Your task to perform on an android device: change the clock display to analog Image 0: 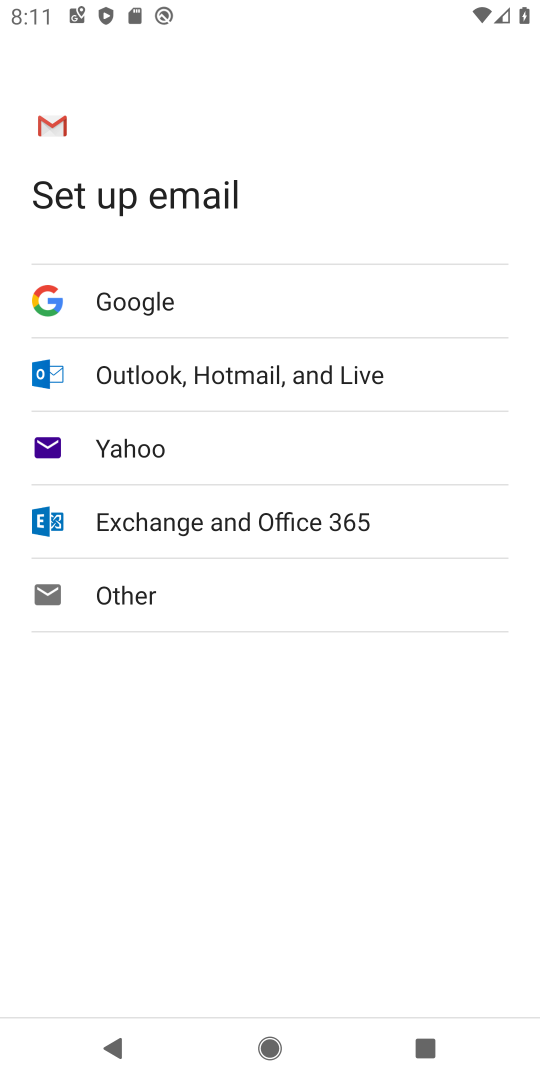
Step 0: press home button
Your task to perform on an android device: change the clock display to analog Image 1: 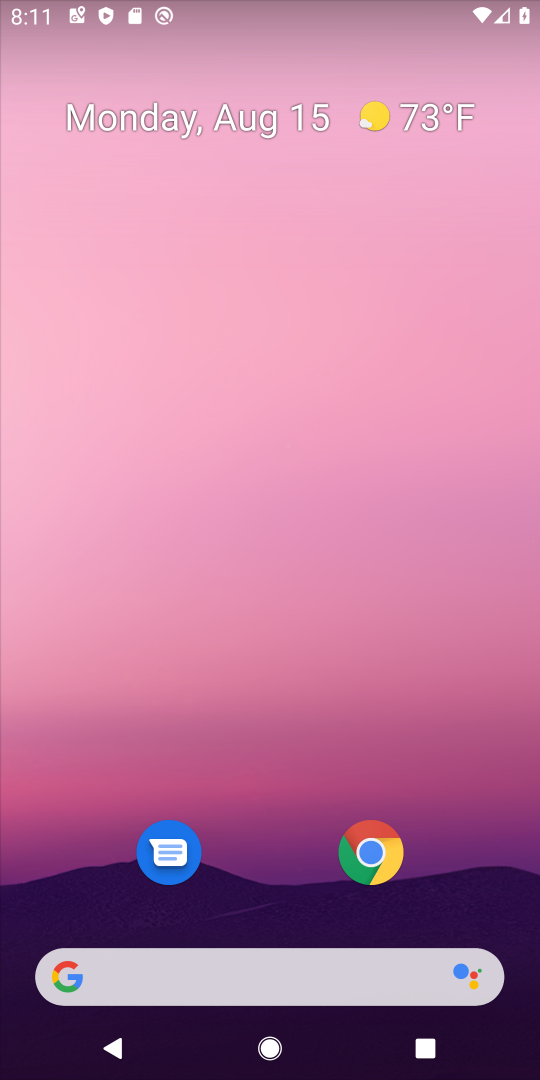
Step 1: drag from (208, 980) to (310, 0)
Your task to perform on an android device: change the clock display to analog Image 2: 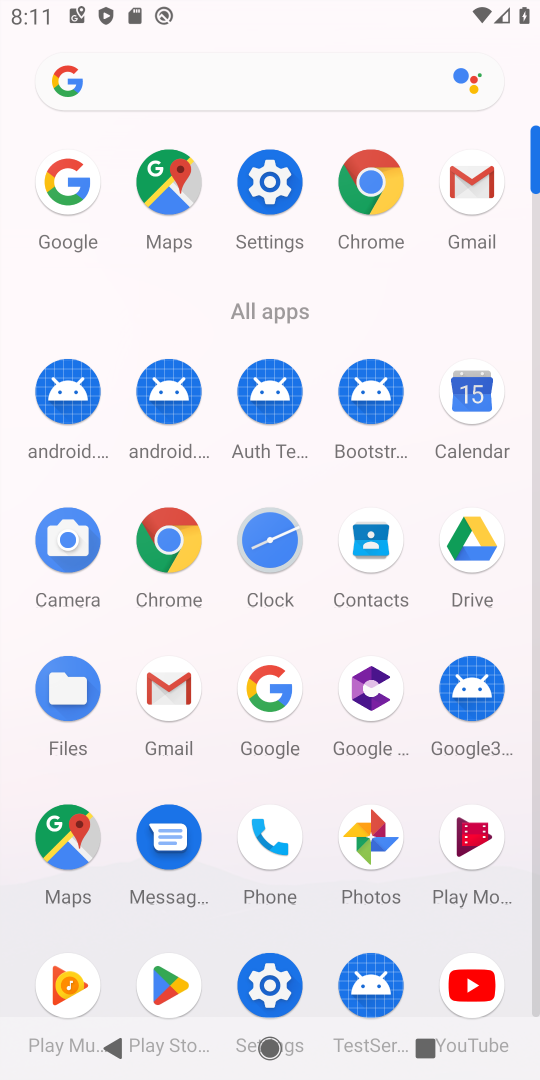
Step 2: click (271, 540)
Your task to perform on an android device: change the clock display to analog Image 3: 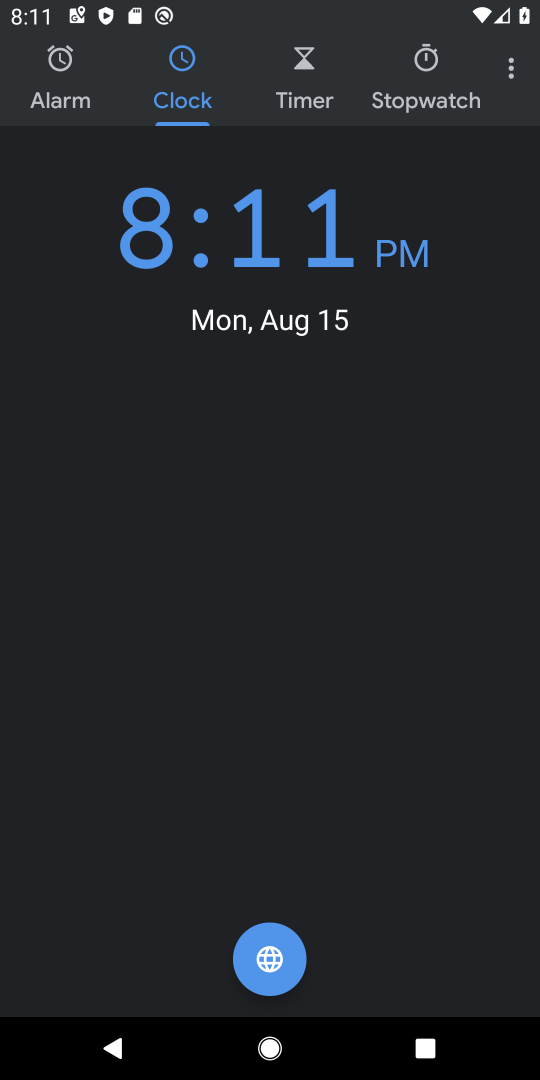
Step 3: click (510, 71)
Your task to perform on an android device: change the clock display to analog Image 4: 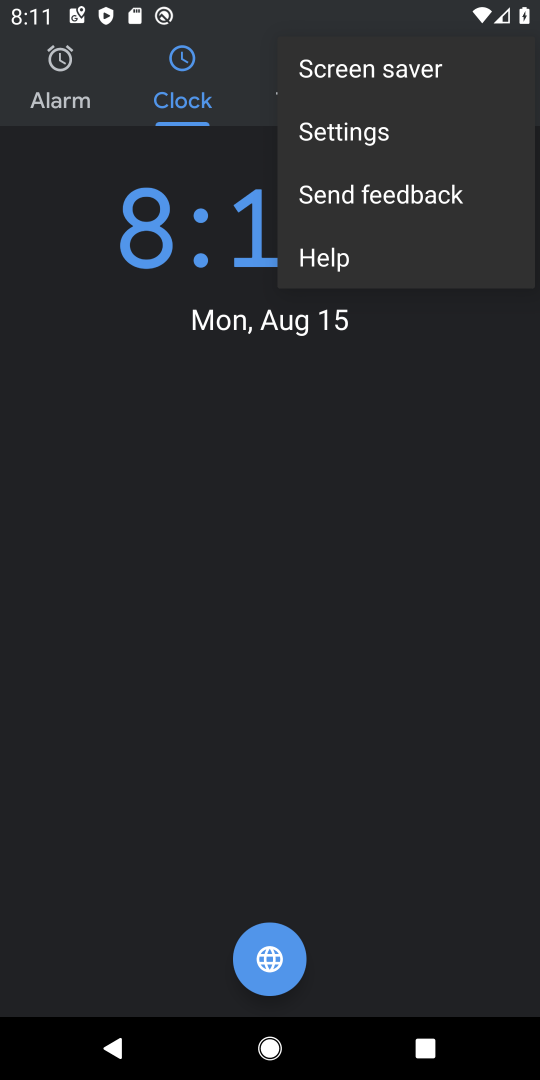
Step 4: click (348, 138)
Your task to perform on an android device: change the clock display to analog Image 5: 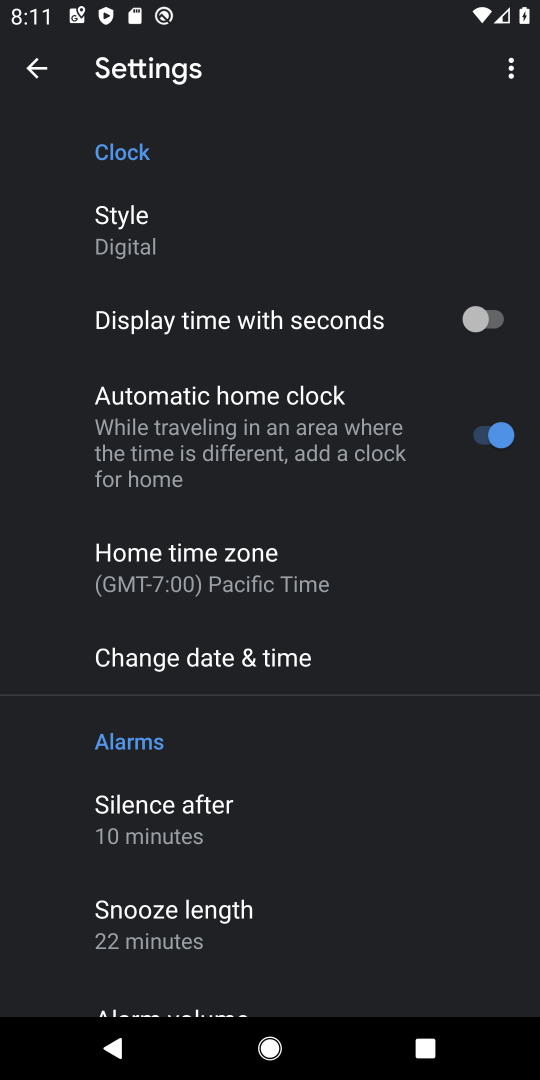
Step 5: click (146, 256)
Your task to perform on an android device: change the clock display to analog Image 6: 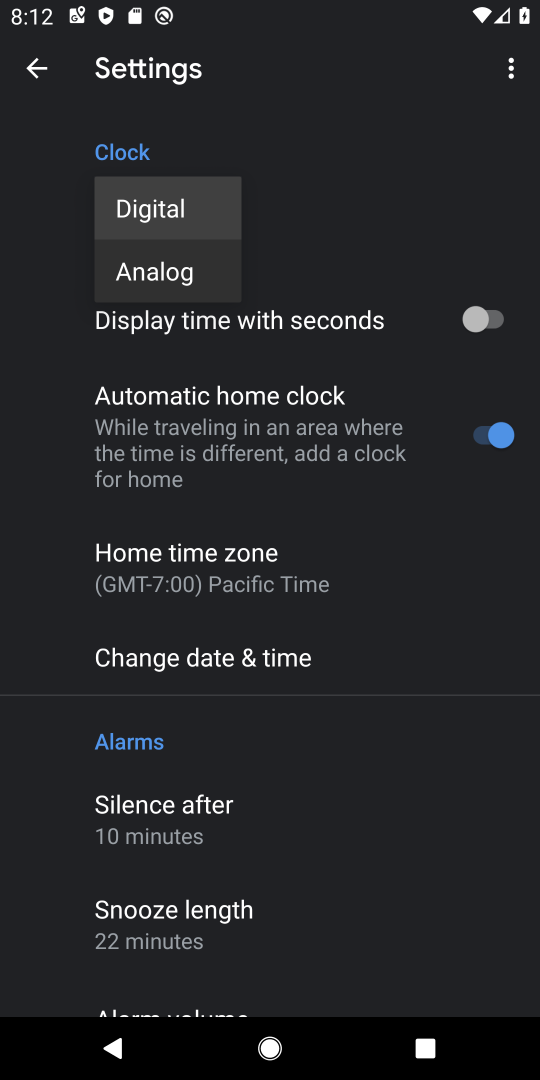
Step 6: click (153, 281)
Your task to perform on an android device: change the clock display to analog Image 7: 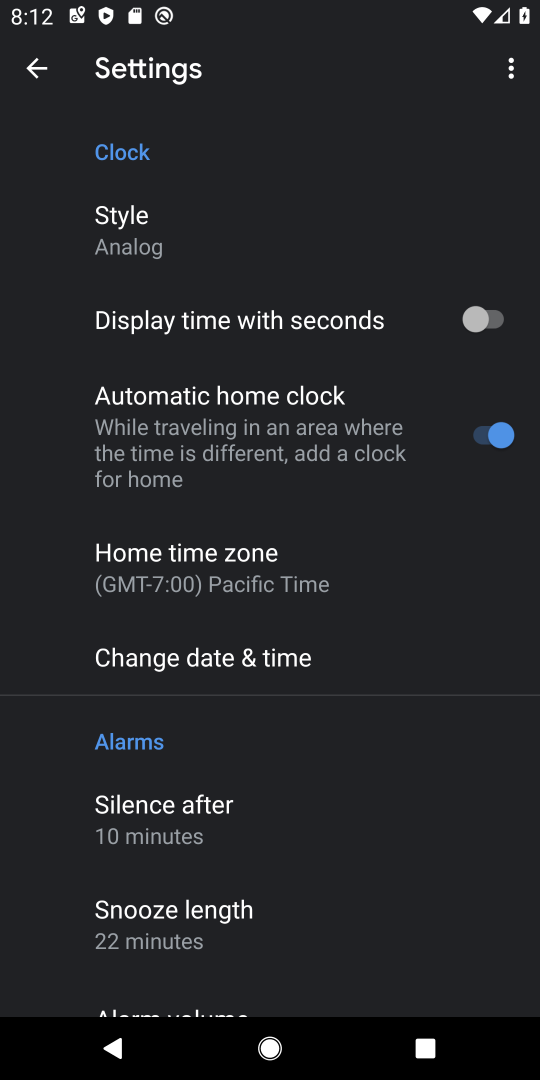
Step 7: task complete